Your task to perform on an android device: see creations saved in the google photos Image 0: 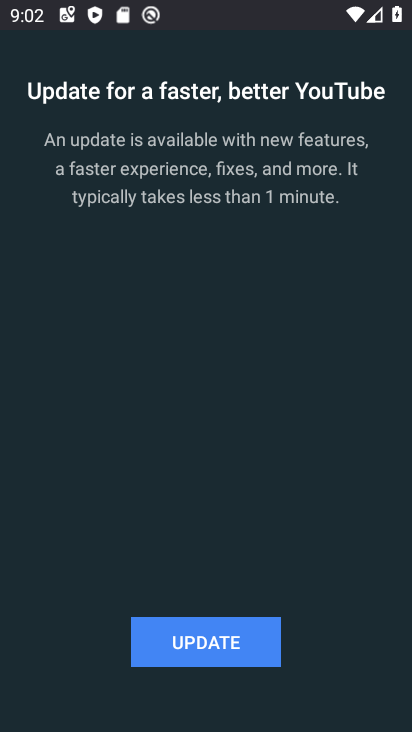
Step 0: press back button
Your task to perform on an android device: see creations saved in the google photos Image 1: 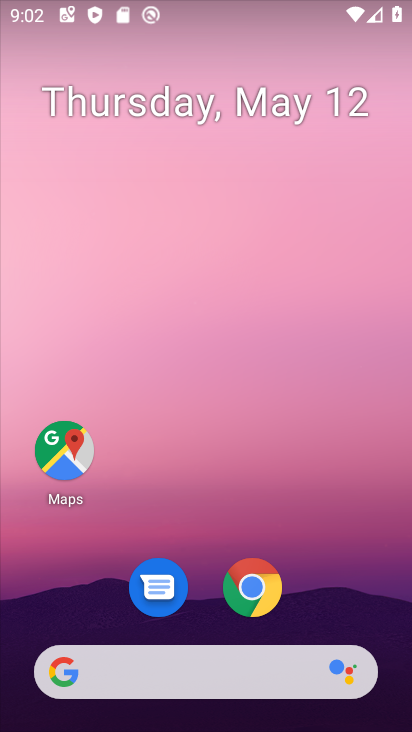
Step 1: drag from (328, 596) to (300, 266)
Your task to perform on an android device: see creations saved in the google photos Image 2: 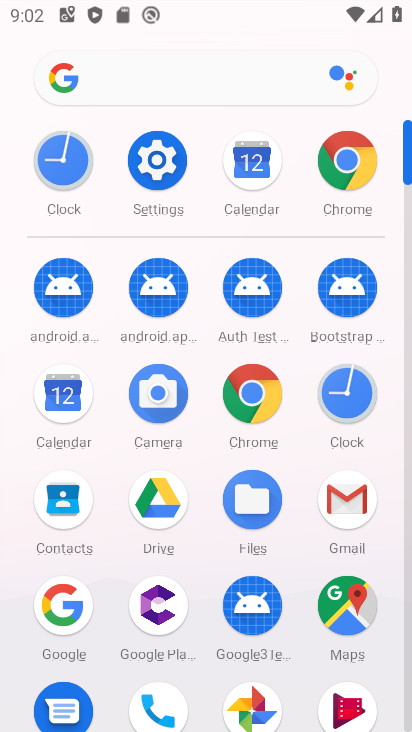
Step 2: drag from (191, 548) to (217, 230)
Your task to perform on an android device: see creations saved in the google photos Image 3: 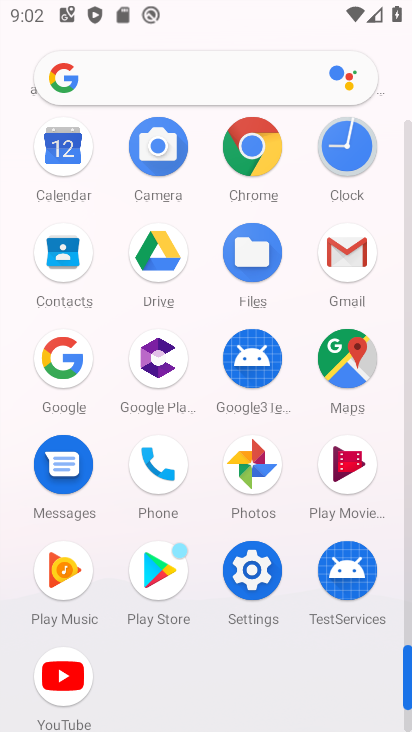
Step 3: click (244, 456)
Your task to perform on an android device: see creations saved in the google photos Image 4: 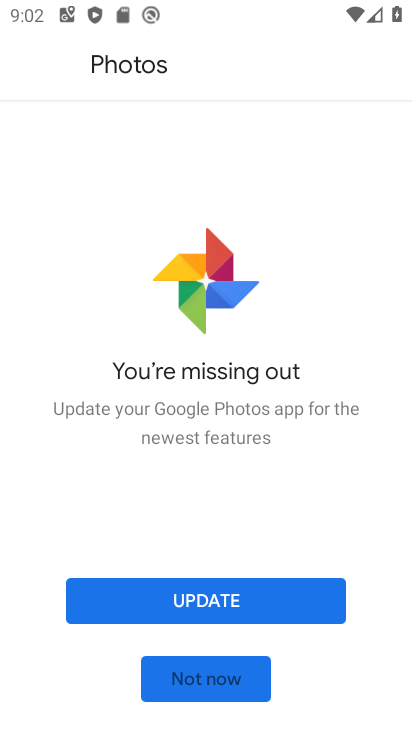
Step 4: click (236, 681)
Your task to perform on an android device: see creations saved in the google photos Image 5: 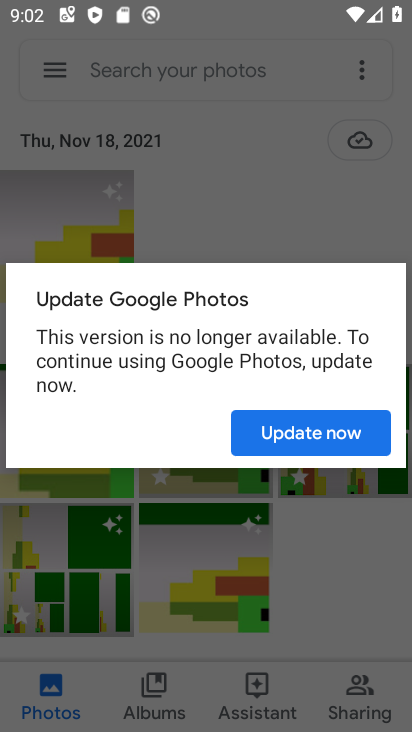
Step 5: click (366, 427)
Your task to perform on an android device: see creations saved in the google photos Image 6: 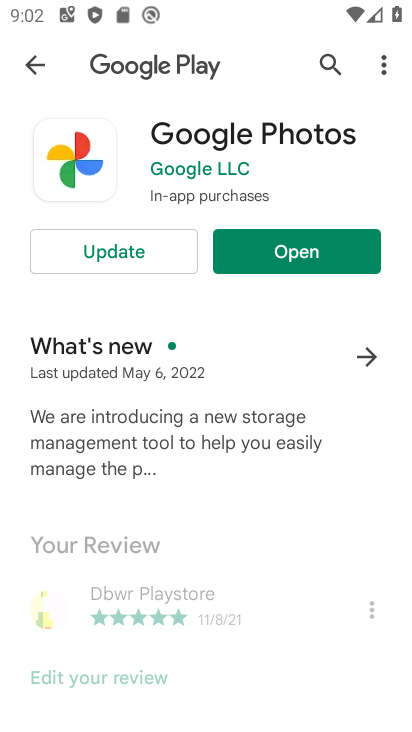
Step 6: press back button
Your task to perform on an android device: see creations saved in the google photos Image 7: 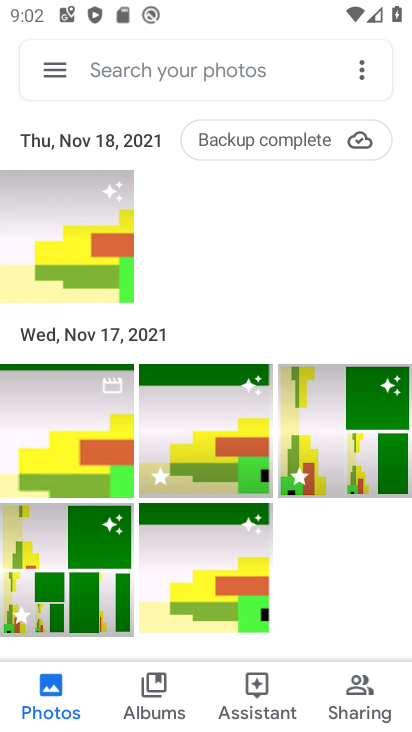
Step 7: click (74, 444)
Your task to perform on an android device: see creations saved in the google photos Image 8: 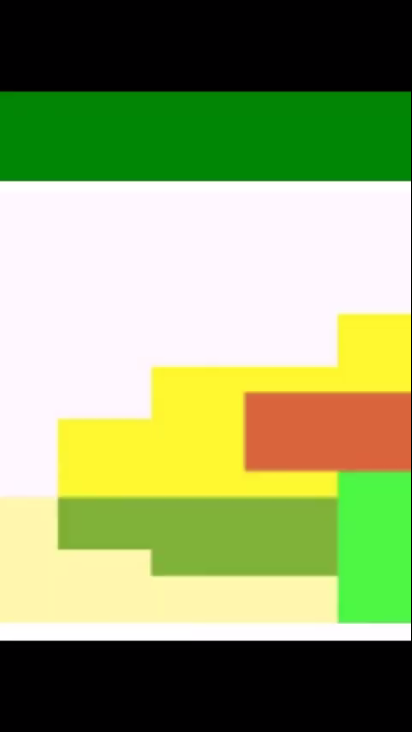
Step 8: task complete